Your task to perform on an android device: open app "Calculator" (install if not already installed) Image 0: 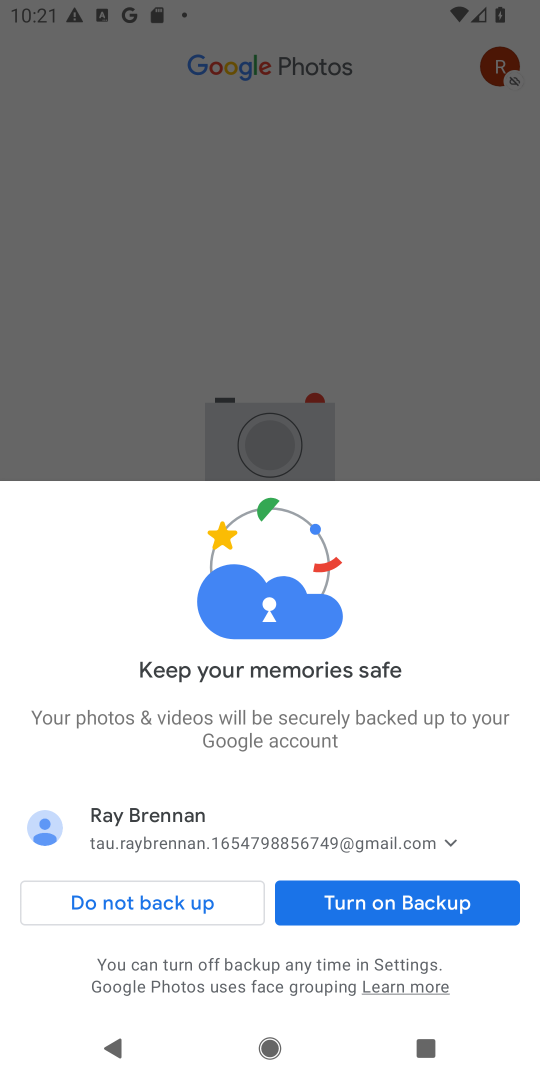
Step 0: press home button
Your task to perform on an android device: open app "Calculator" (install if not already installed) Image 1: 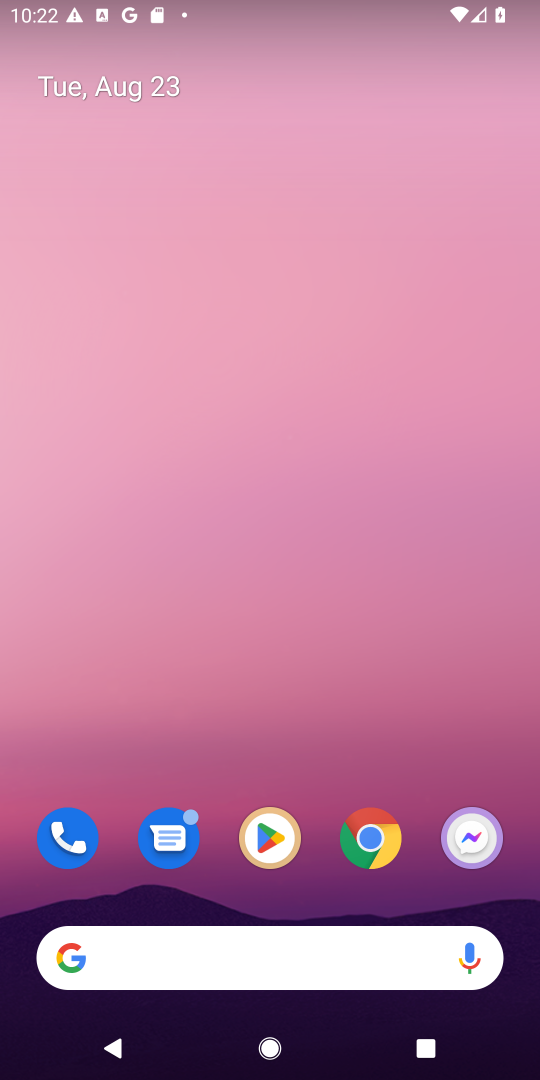
Step 1: click (285, 826)
Your task to perform on an android device: open app "Calculator" (install if not already installed) Image 2: 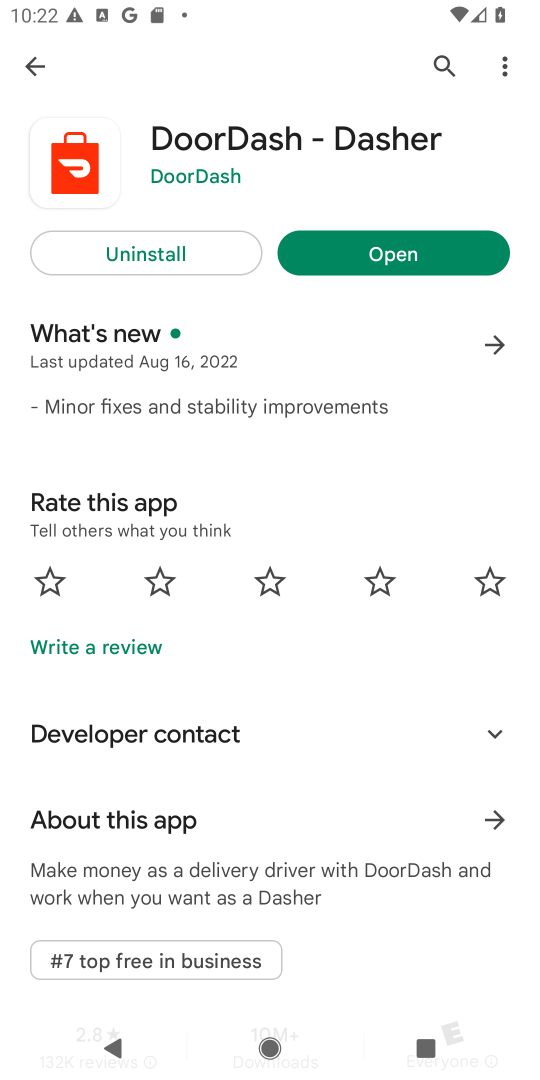
Step 2: click (445, 52)
Your task to perform on an android device: open app "Calculator" (install if not already installed) Image 3: 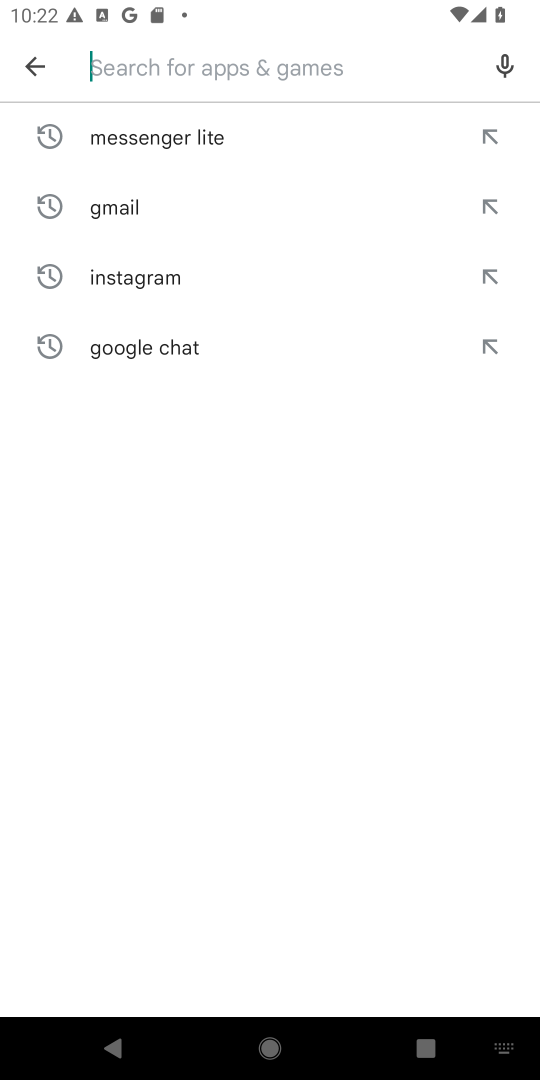
Step 3: type "Calculator"
Your task to perform on an android device: open app "Calculator" (install if not already installed) Image 4: 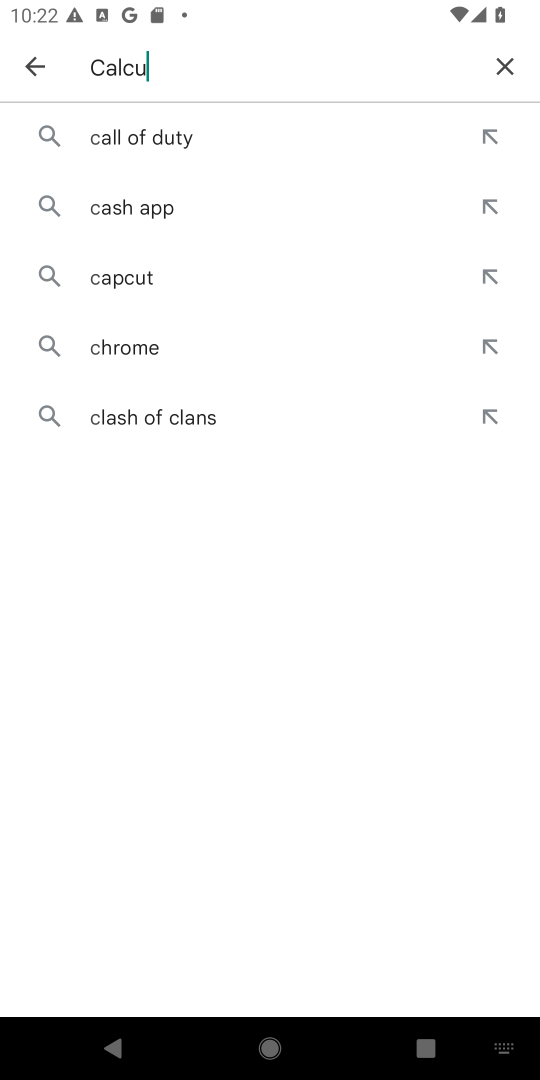
Step 4: type ""
Your task to perform on an android device: open app "Calculator" (install if not already installed) Image 5: 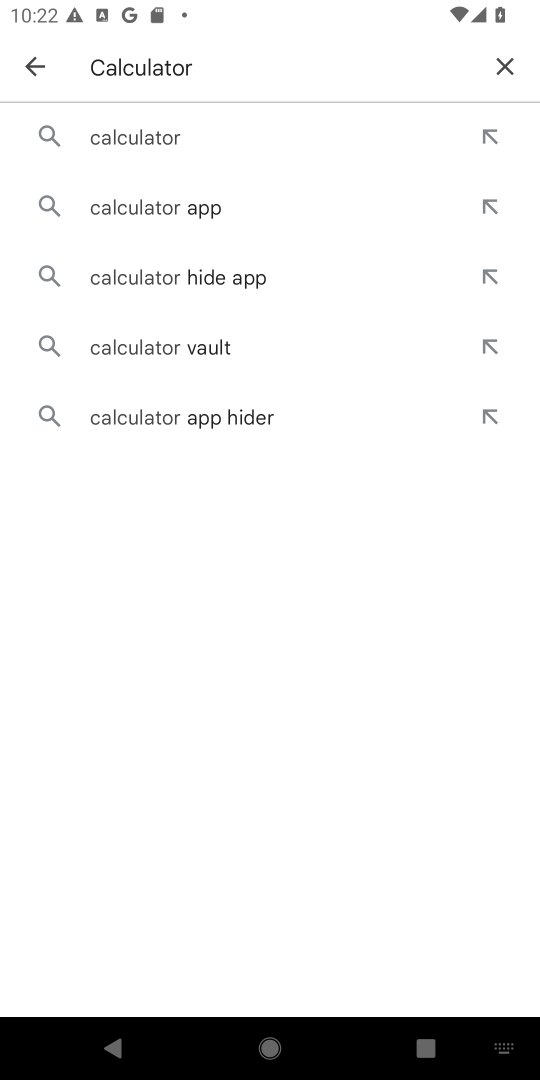
Step 5: click (159, 137)
Your task to perform on an android device: open app "Calculator" (install if not already installed) Image 6: 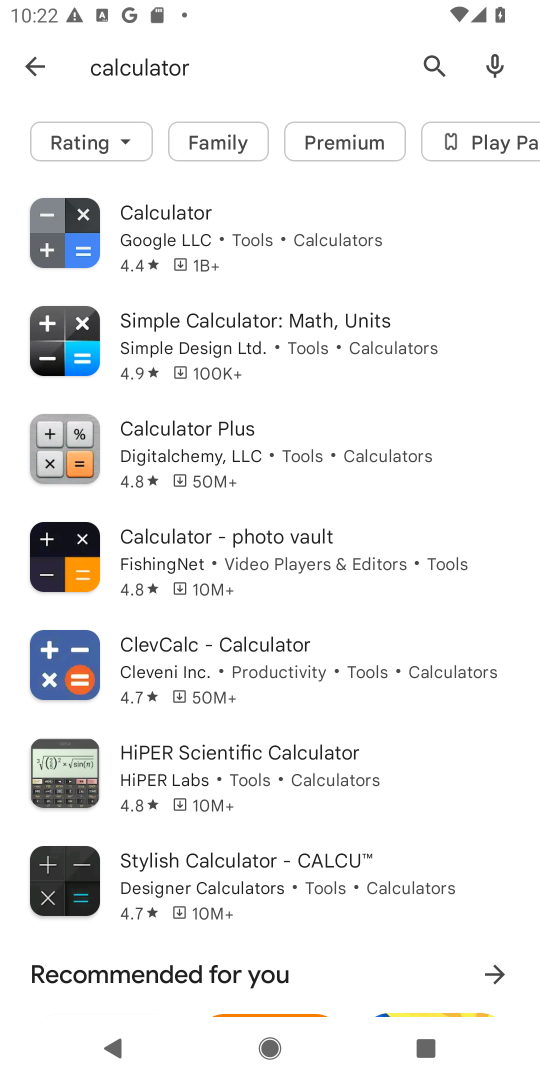
Step 6: click (200, 213)
Your task to perform on an android device: open app "Calculator" (install if not already installed) Image 7: 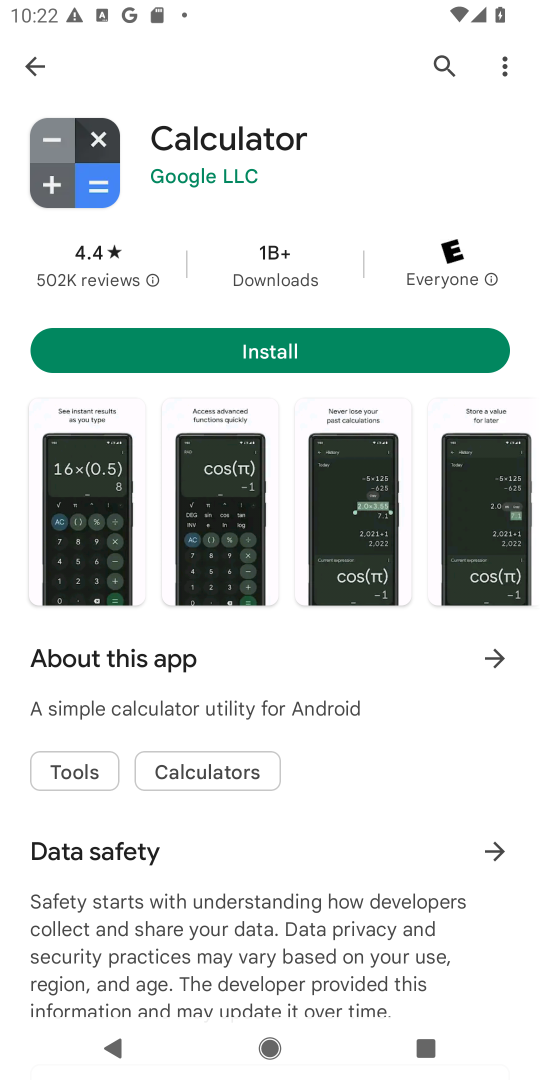
Step 7: click (317, 340)
Your task to perform on an android device: open app "Calculator" (install if not already installed) Image 8: 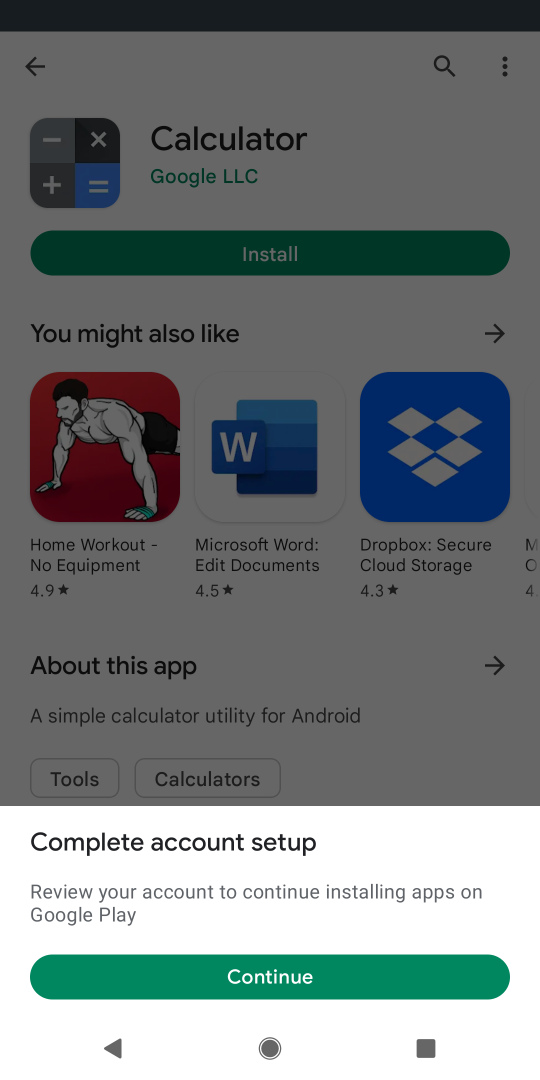
Step 8: click (331, 970)
Your task to perform on an android device: open app "Calculator" (install if not already installed) Image 9: 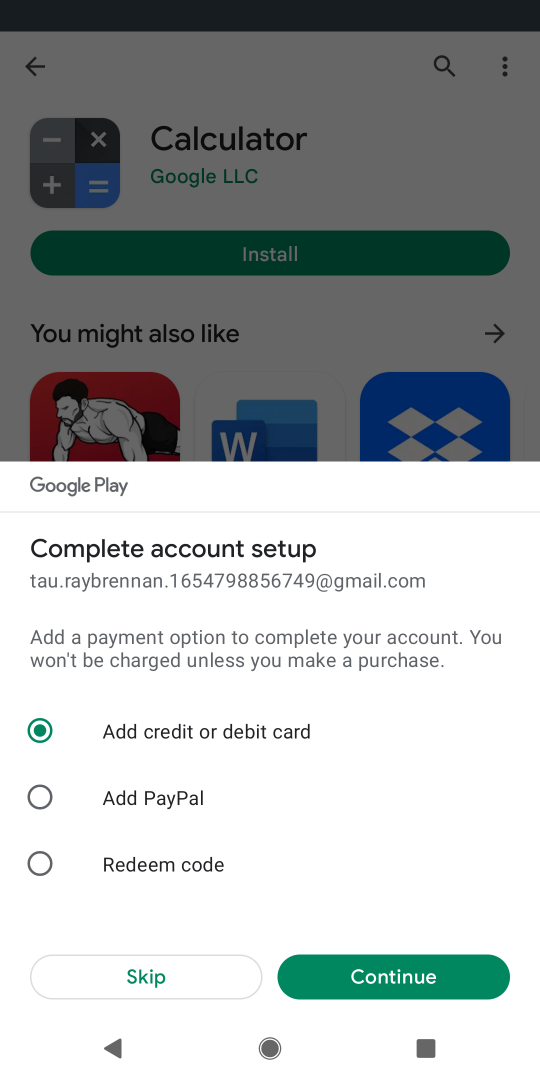
Step 9: click (151, 988)
Your task to perform on an android device: open app "Calculator" (install if not already installed) Image 10: 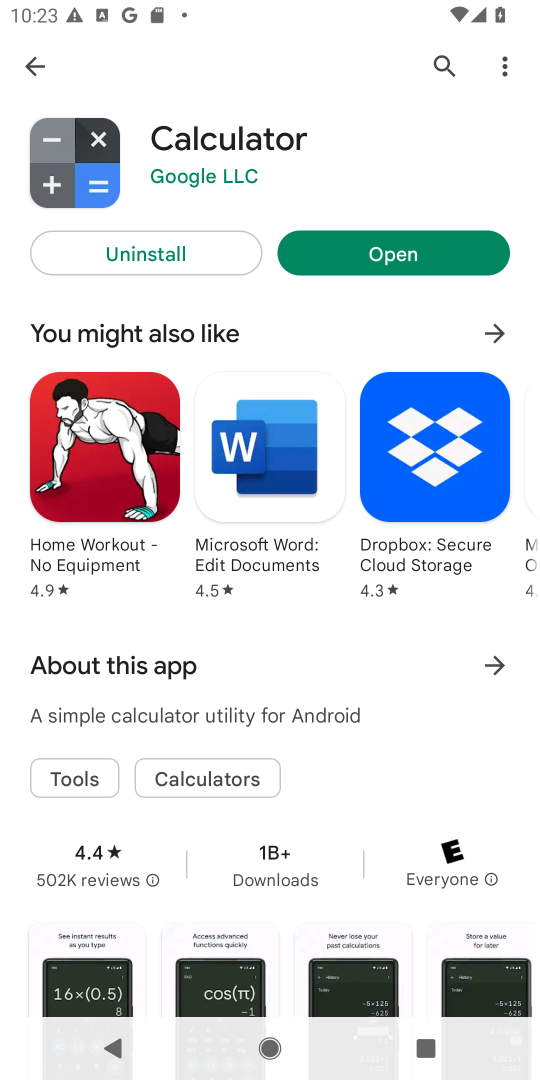
Step 10: click (411, 263)
Your task to perform on an android device: open app "Calculator" (install if not already installed) Image 11: 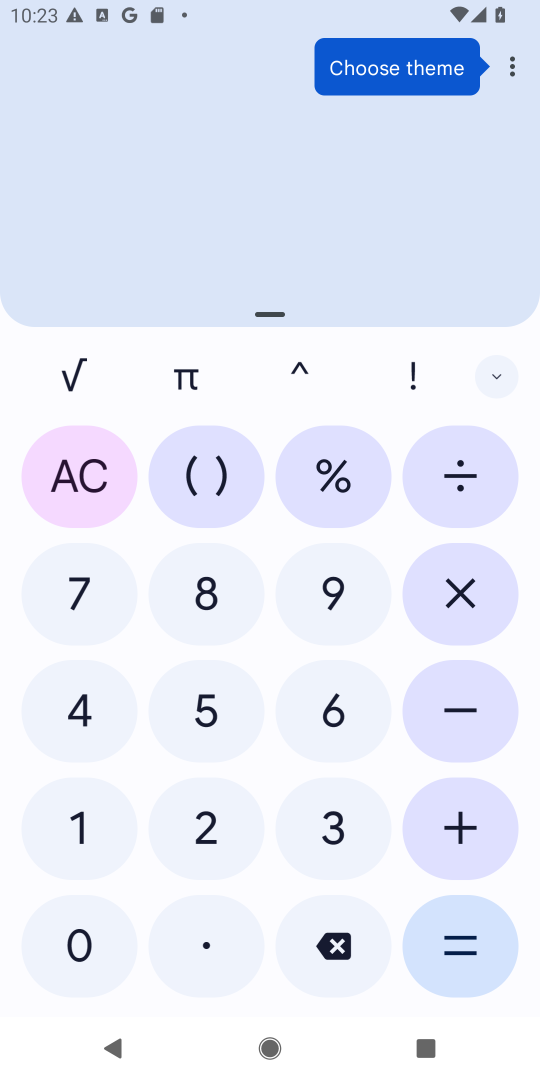
Step 11: task complete